Your task to perform on an android device: turn notification dots off Image 0: 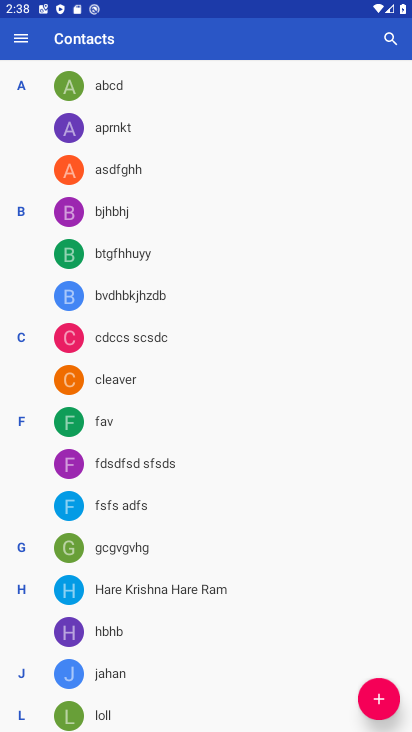
Step 0: press home button
Your task to perform on an android device: turn notification dots off Image 1: 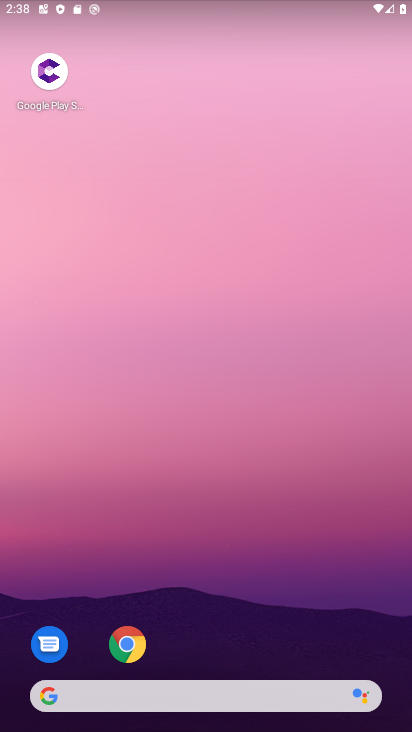
Step 1: drag from (266, 650) to (243, 76)
Your task to perform on an android device: turn notification dots off Image 2: 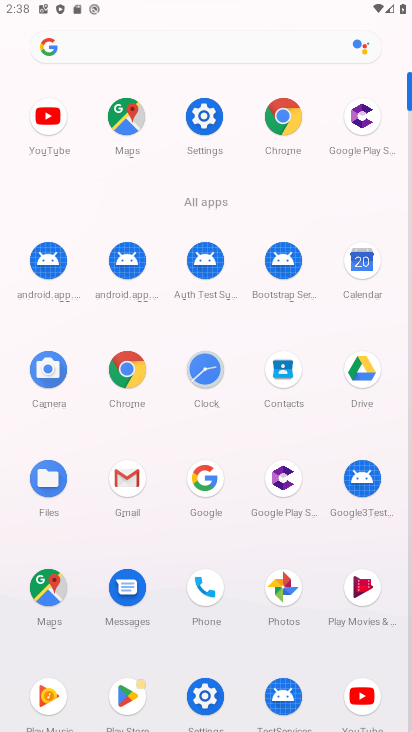
Step 2: click (211, 119)
Your task to perform on an android device: turn notification dots off Image 3: 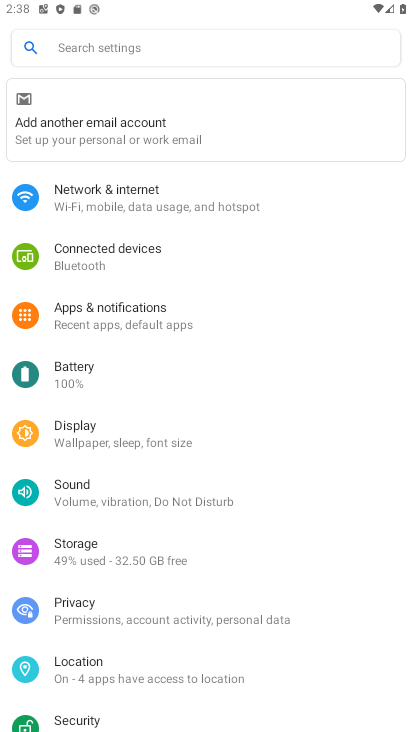
Step 3: click (151, 327)
Your task to perform on an android device: turn notification dots off Image 4: 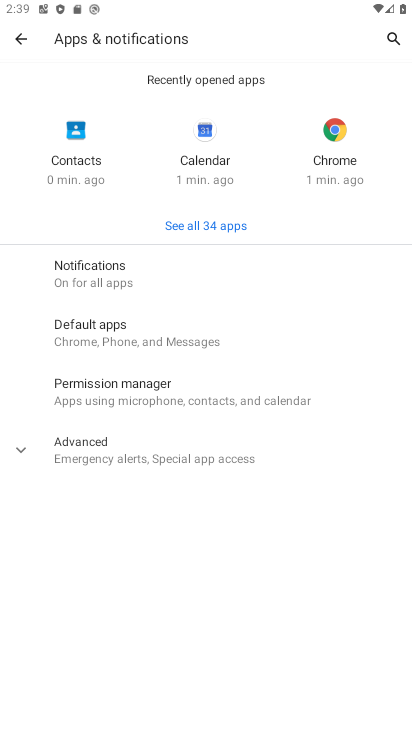
Step 4: click (201, 262)
Your task to perform on an android device: turn notification dots off Image 5: 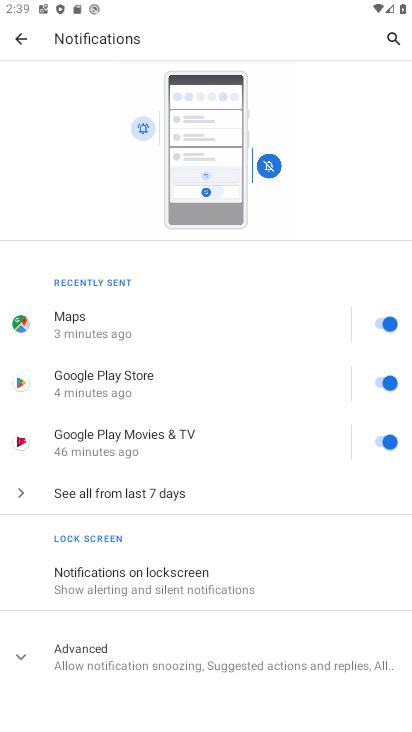
Step 5: click (221, 640)
Your task to perform on an android device: turn notification dots off Image 6: 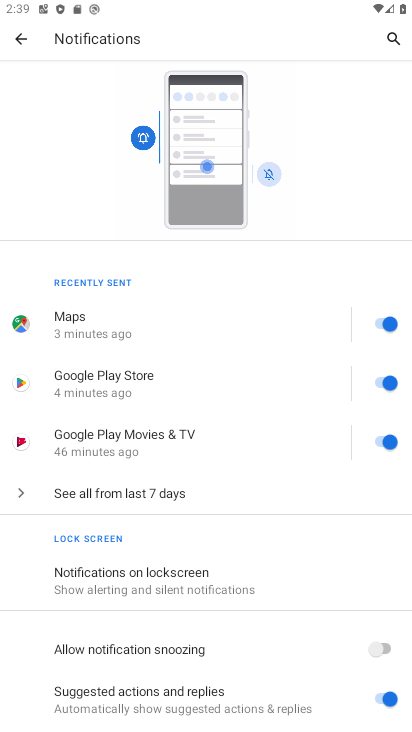
Step 6: drag from (259, 644) to (274, 307)
Your task to perform on an android device: turn notification dots off Image 7: 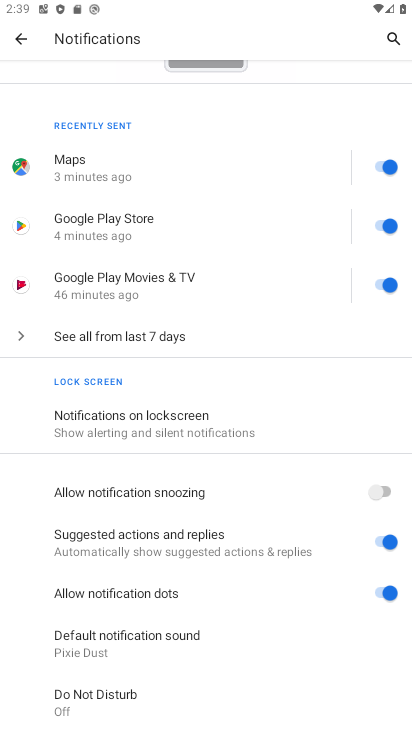
Step 7: click (367, 581)
Your task to perform on an android device: turn notification dots off Image 8: 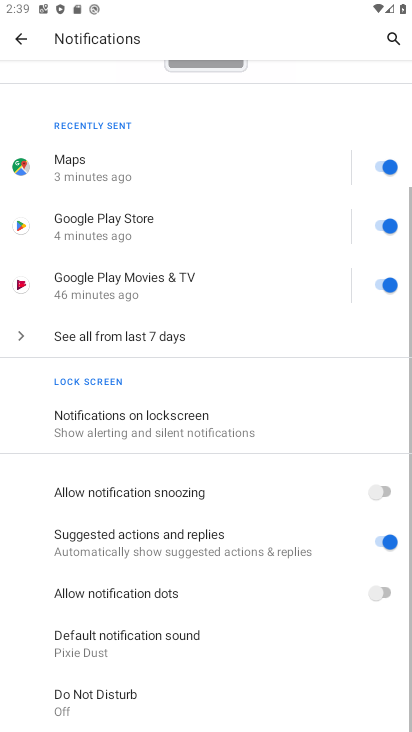
Step 8: task complete